Your task to perform on an android device: What is the recent news? Image 0: 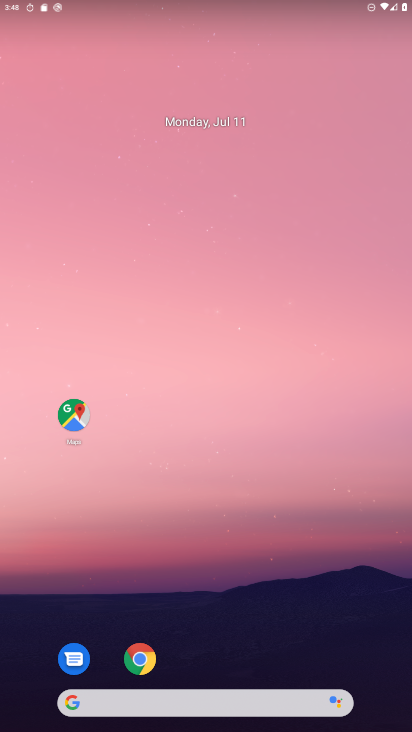
Step 0: drag from (294, 657) to (283, 265)
Your task to perform on an android device: What is the recent news? Image 1: 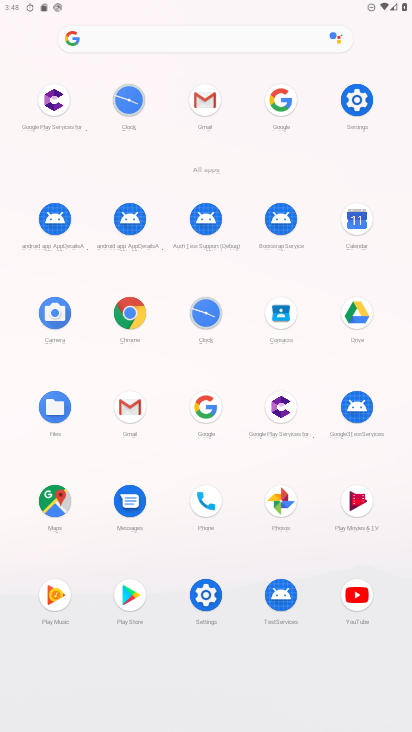
Step 1: click (119, 324)
Your task to perform on an android device: What is the recent news? Image 2: 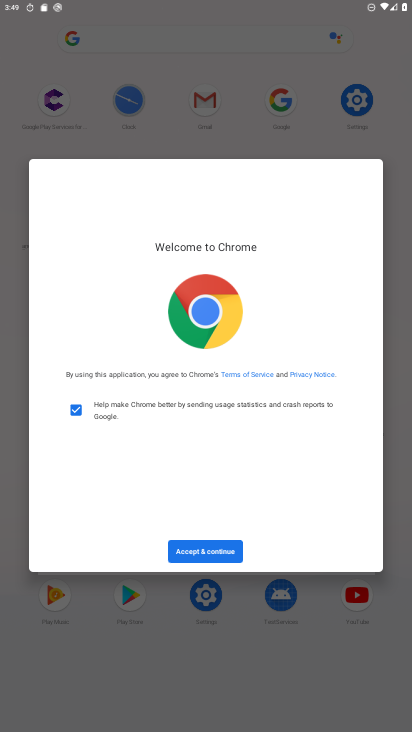
Step 2: click (217, 544)
Your task to perform on an android device: What is the recent news? Image 3: 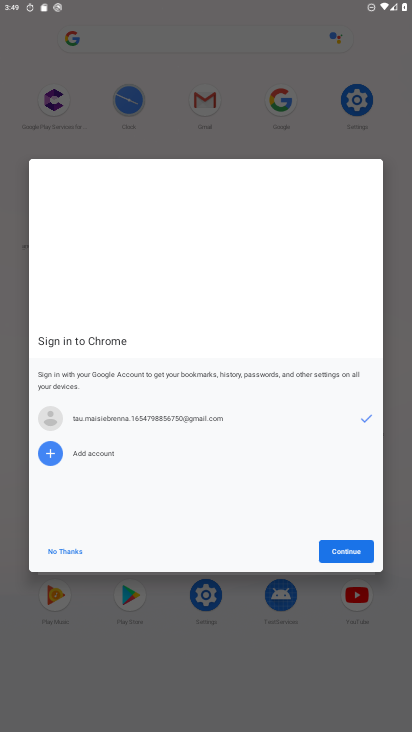
Step 3: click (340, 541)
Your task to perform on an android device: What is the recent news? Image 4: 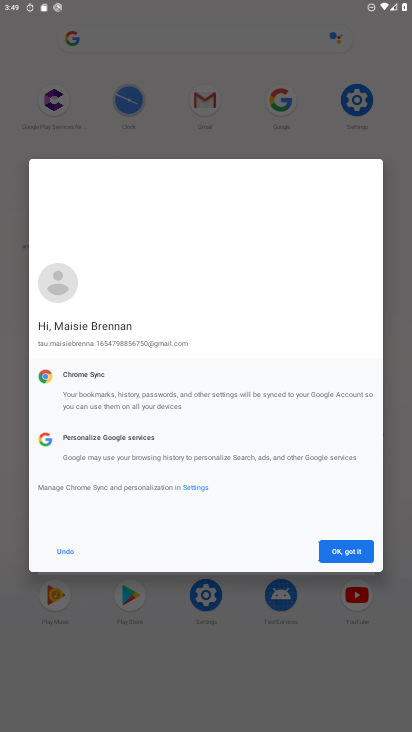
Step 4: click (340, 541)
Your task to perform on an android device: What is the recent news? Image 5: 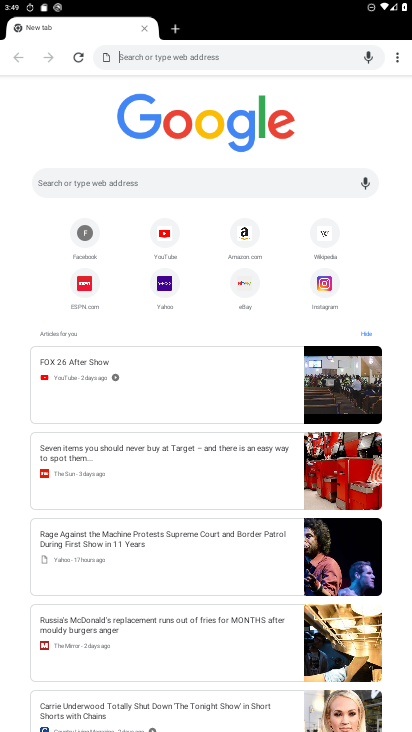
Step 5: click (221, 170)
Your task to perform on an android device: What is the recent news? Image 6: 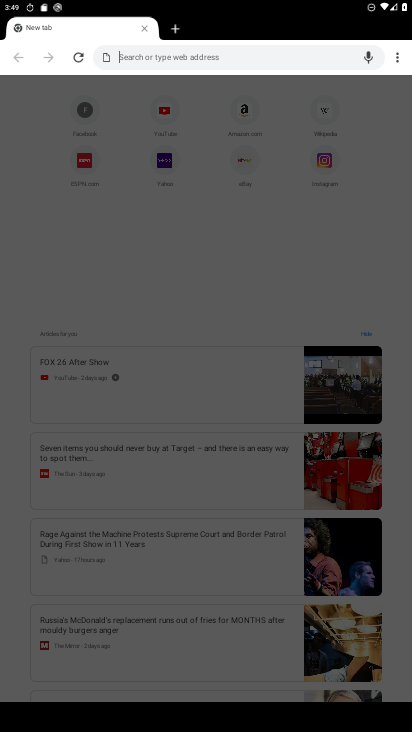
Step 6: type "What is the recent news "
Your task to perform on an android device: What is the recent news? Image 7: 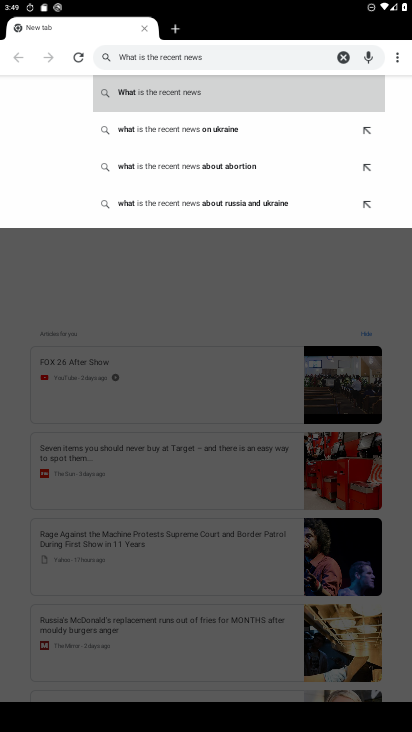
Step 7: click (240, 89)
Your task to perform on an android device: What is the recent news? Image 8: 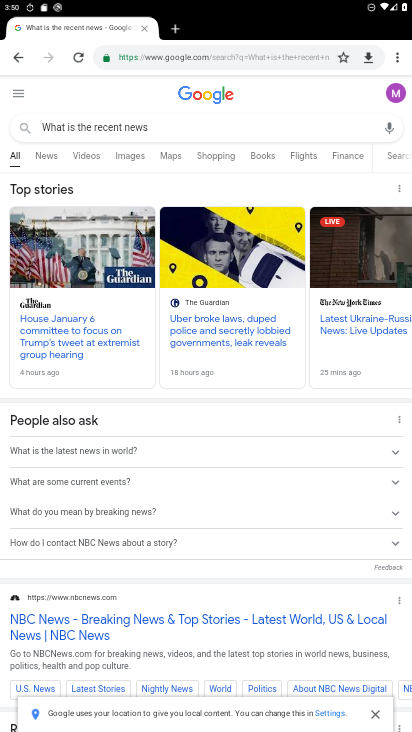
Step 8: task complete